Your task to perform on an android device: Open Youtube and go to the subscriptions tab Image 0: 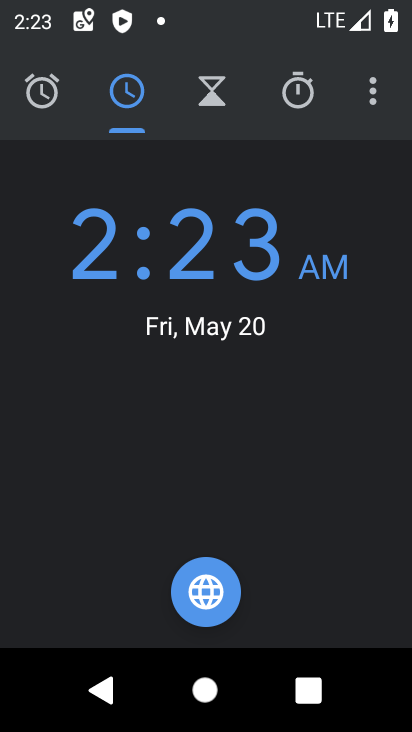
Step 0: press home button
Your task to perform on an android device: Open Youtube and go to the subscriptions tab Image 1: 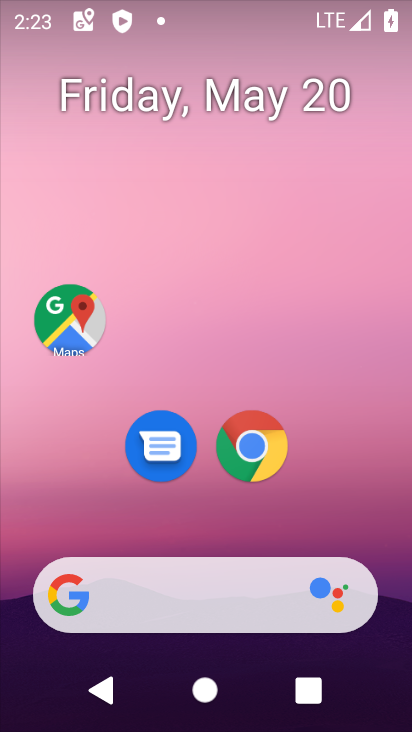
Step 1: drag from (364, 550) to (411, 661)
Your task to perform on an android device: Open Youtube and go to the subscriptions tab Image 2: 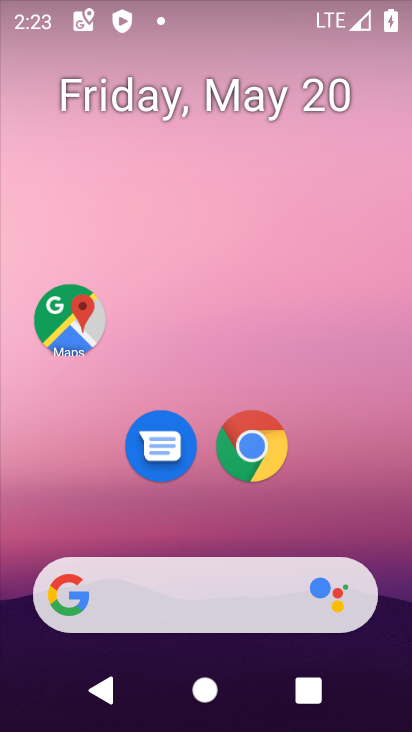
Step 2: drag from (408, 609) to (386, 73)
Your task to perform on an android device: Open Youtube and go to the subscriptions tab Image 3: 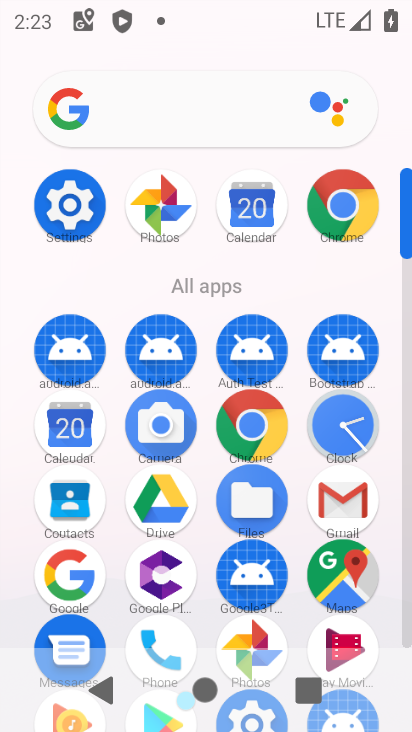
Step 3: click (409, 446)
Your task to perform on an android device: Open Youtube and go to the subscriptions tab Image 4: 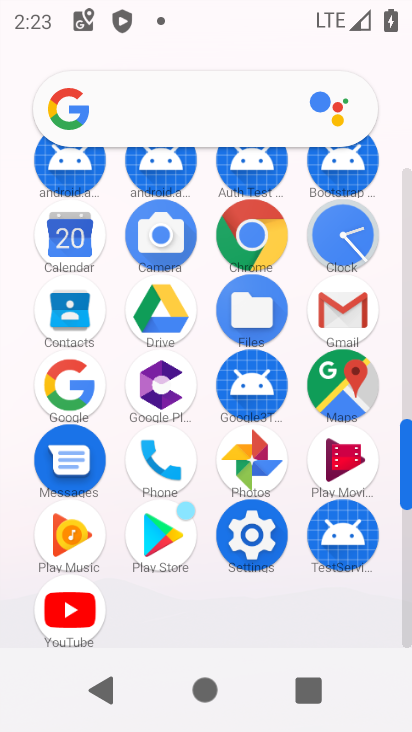
Step 4: click (70, 615)
Your task to perform on an android device: Open Youtube and go to the subscriptions tab Image 5: 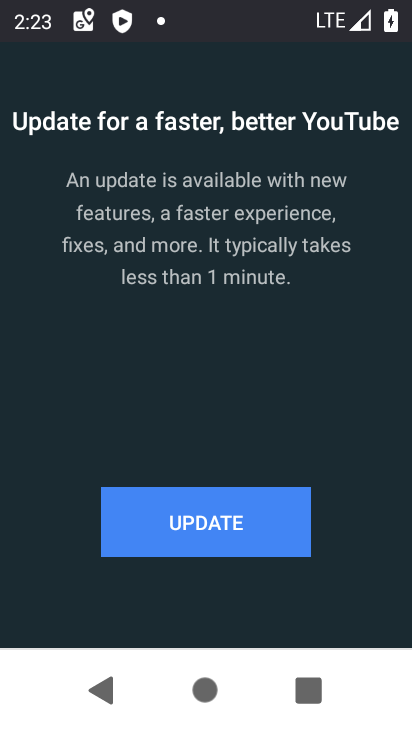
Step 5: click (207, 535)
Your task to perform on an android device: Open Youtube and go to the subscriptions tab Image 6: 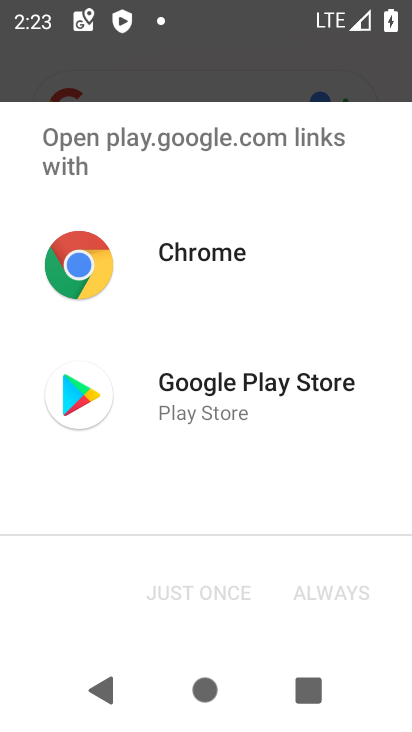
Step 6: click (159, 393)
Your task to perform on an android device: Open Youtube and go to the subscriptions tab Image 7: 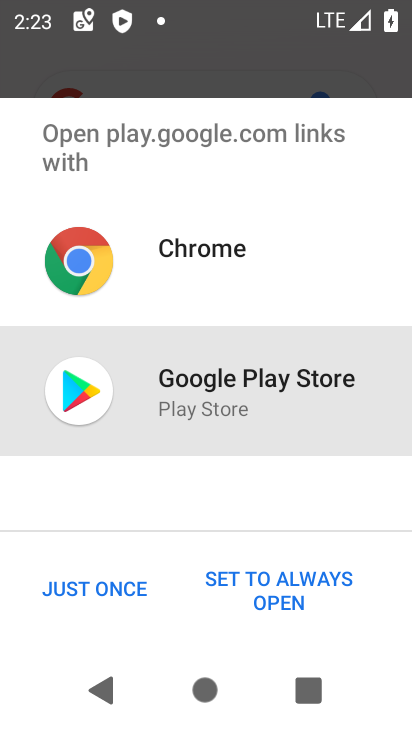
Step 7: click (105, 586)
Your task to perform on an android device: Open Youtube and go to the subscriptions tab Image 8: 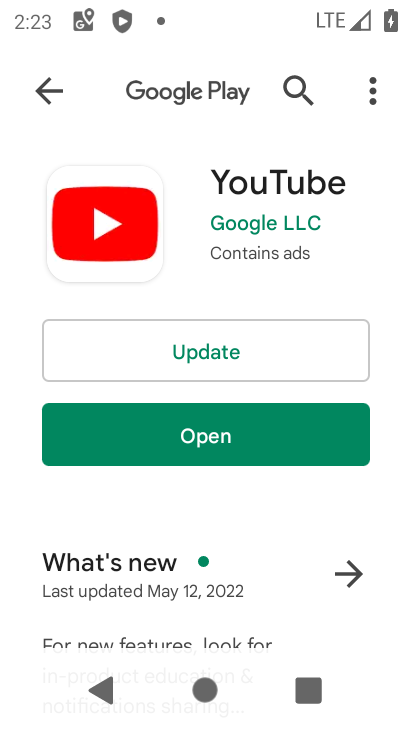
Step 8: click (219, 348)
Your task to perform on an android device: Open Youtube and go to the subscriptions tab Image 9: 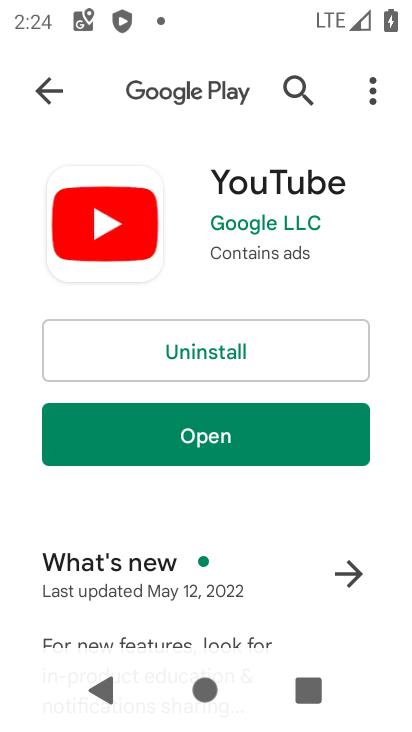
Step 9: click (196, 435)
Your task to perform on an android device: Open Youtube and go to the subscriptions tab Image 10: 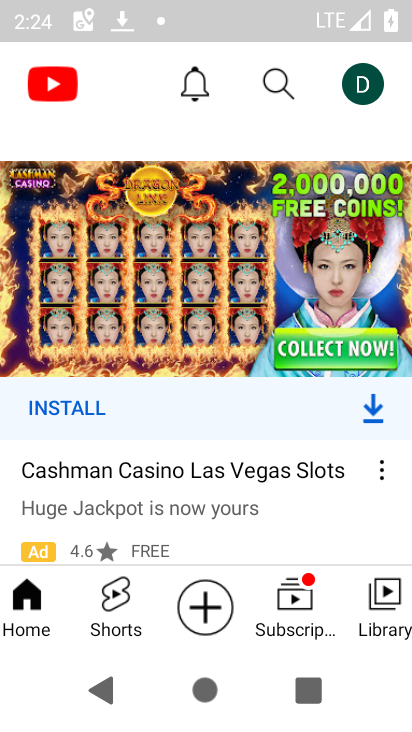
Step 10: click (296, 614)
Your task to perform on an android device: Open Youtube and go to the subscriptions tab Image 11: 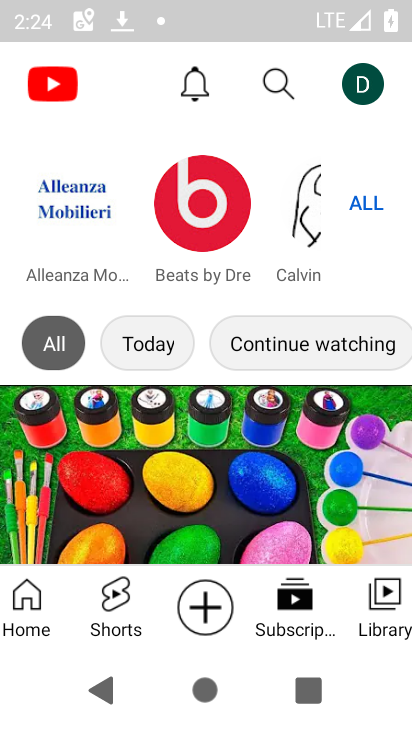
Step 11: click (296, 614)
Your task to perform on an android device: Open Youtube and go to the subscriptions tab Image 12: 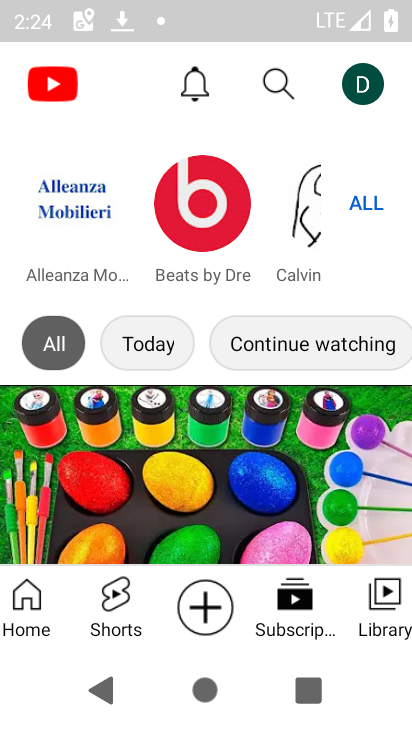
Step 12: task complete